Your task to perform on an android device: turn pop-ups on in chrome Image 0: 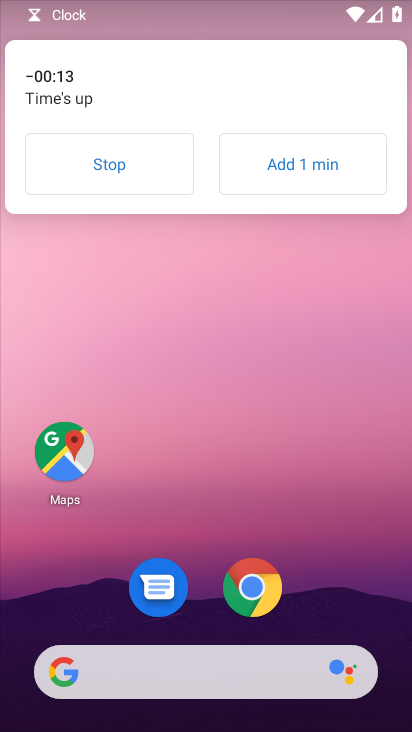
Step 0: click (242, 574)
Your task to perform on an android device: turn pop-ups on in chrome Image 1: 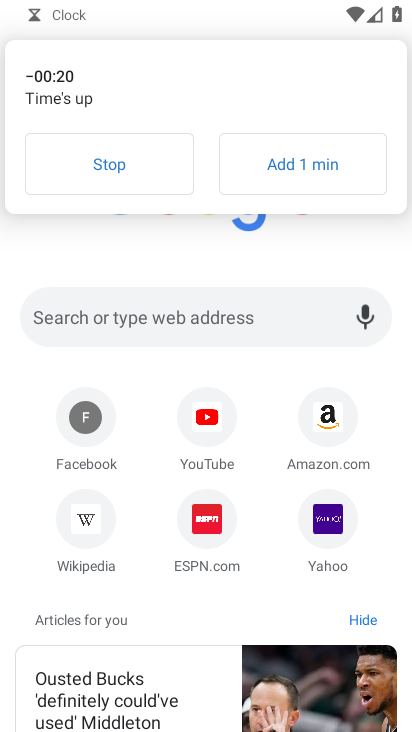
Step 1: click (178, 162)
Your task to perform on an android device: turn pop-ups on in chrome Image 2: 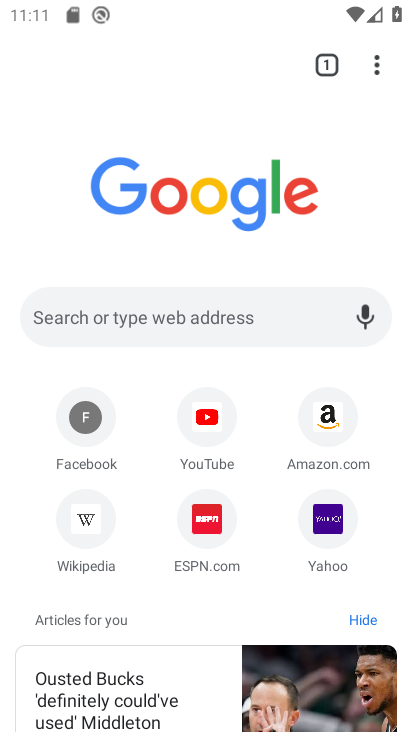
Step 2: drag from (375, 65) to (135, 539)
Your task to perform on an android device: turn pop-ups on in chrome Image 3: 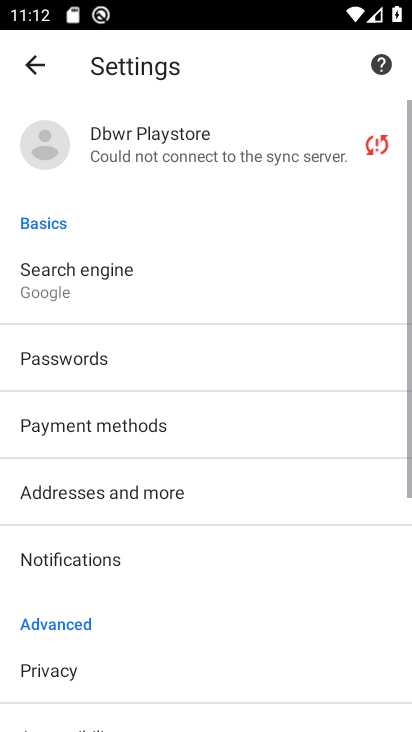
Step 3: drag from (193, 646) to (245, 281)
Your task to perform on an android device: turn pop-ups on in chrome Image 4: 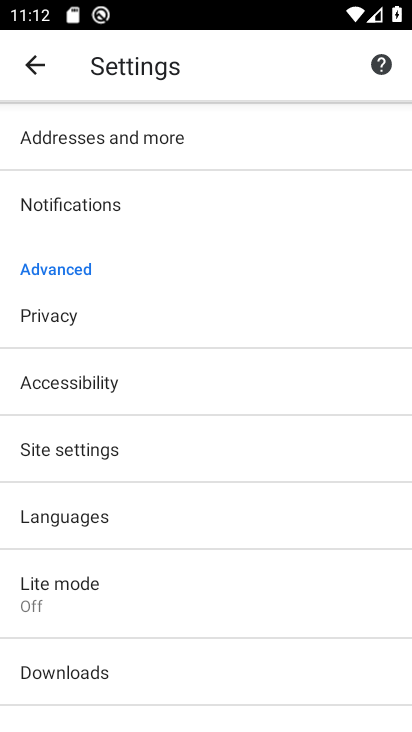
Step 4: click (98, 452)
Your task to perform on an android device: turn pop-ups on in chrome Image 5: 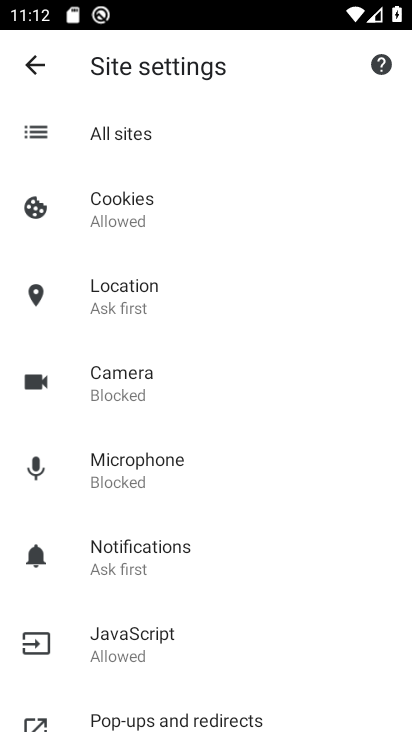
Step 5: drag from (180, 625) to (237, 317)
Your task to perform on an android device: turn pop-ups on in chrome Image 6: 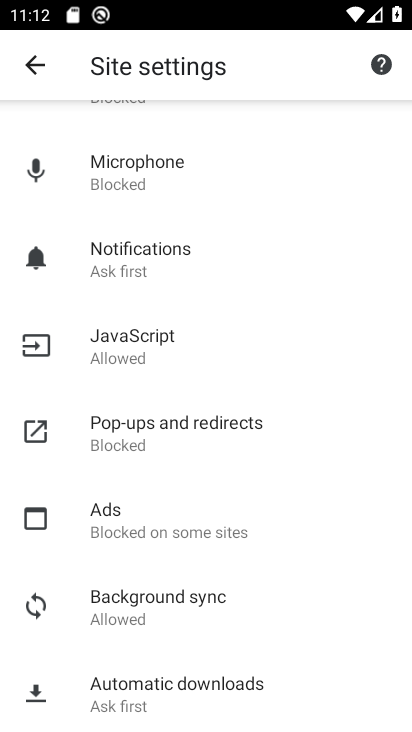
Step 6: click (157, 444)
Your task to perform on an android device: turn pop-ups on in chrome Image 7: 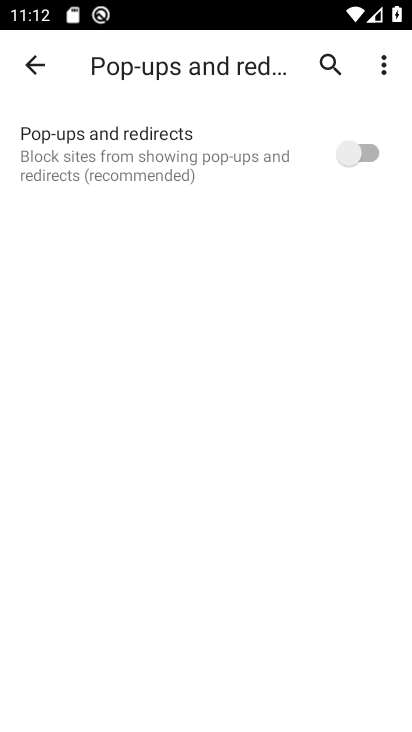
Step 7: click (367, 144)
Your task to perform on an android device: turn pop-ups on in chrome Image 8: 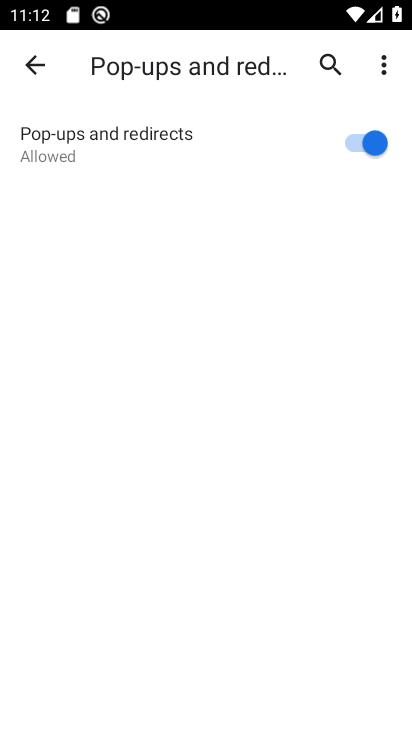
Step 8: task complete